Your task to perform on an android device: Open Reddit.com Image 0: 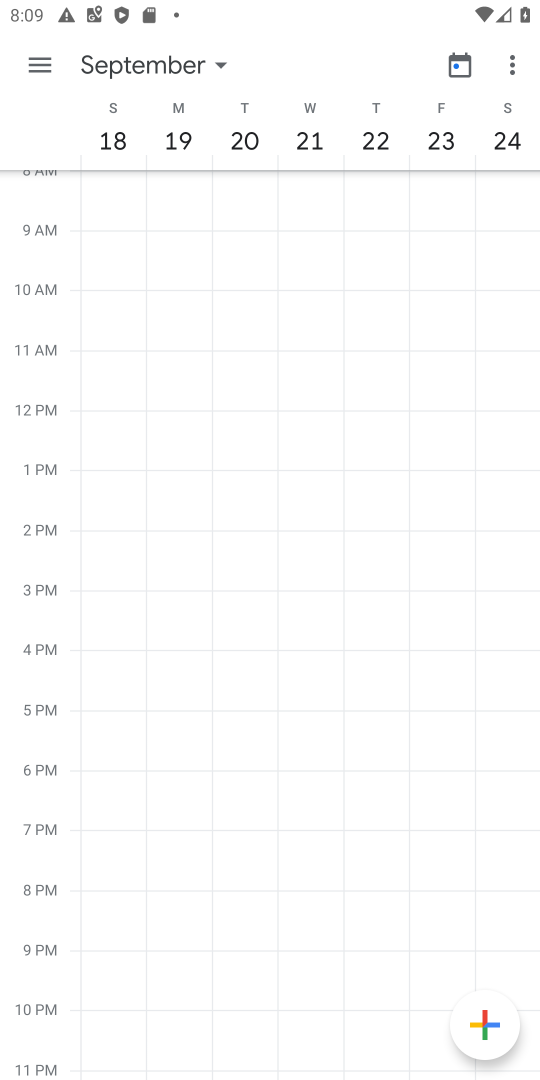
Step 0: press home button
Your task to perform on an android device: Open Reddit.com Image 1: 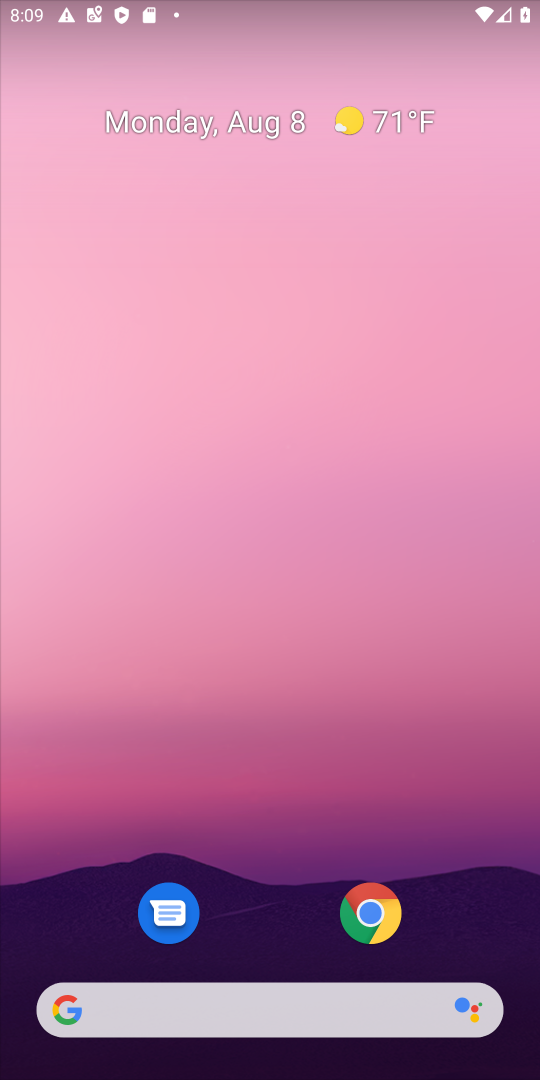
Step 1: click (368, 915)
Your task to perform on an android device: Open Reddit.com Image 2: 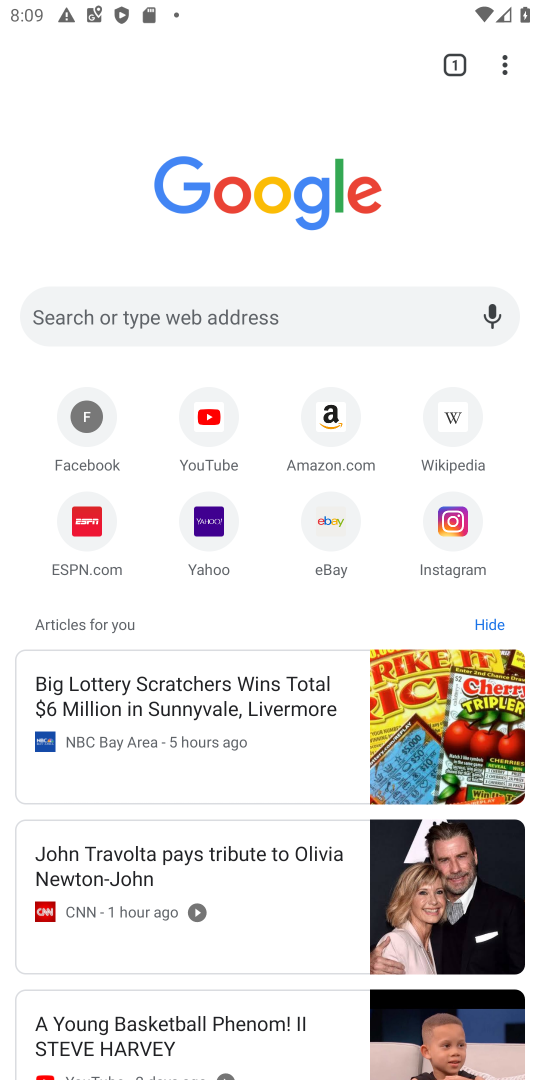
Step 2: click (277, 319)
Your task to perform on an android device: Open Reddit.com Image 3: 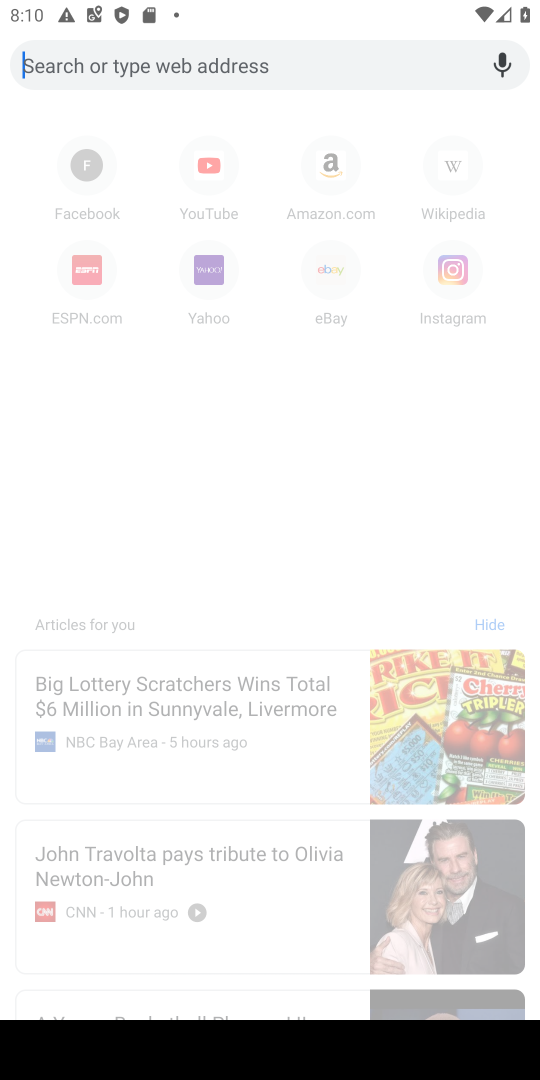
Step 3: type "Reddit.com"
Your task to perform on an android device: Open Reddit.com Image 4: 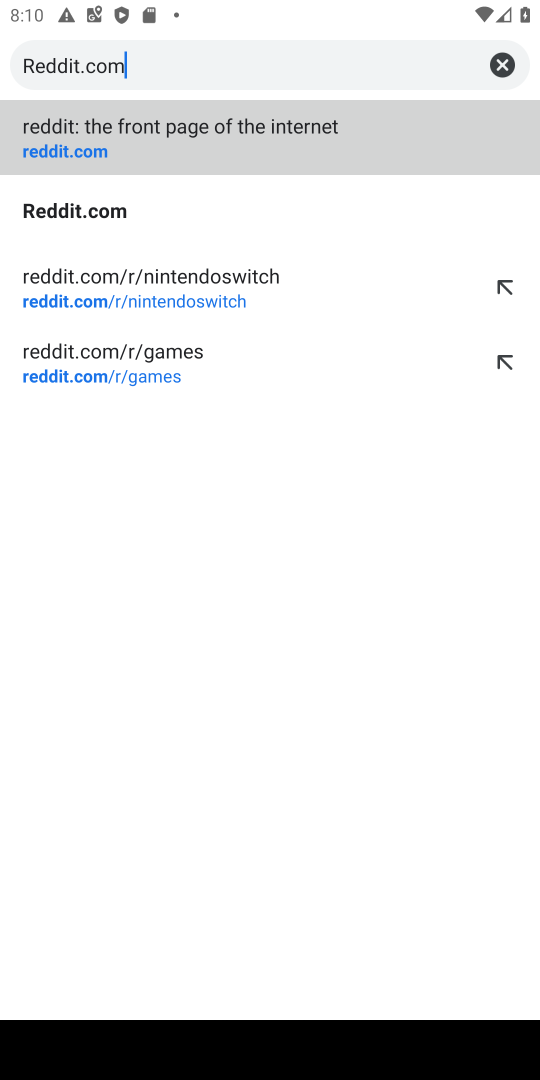
Step 4: click (109, 214)
Your task to perform on an android device: Open Reddit.com Image 5: 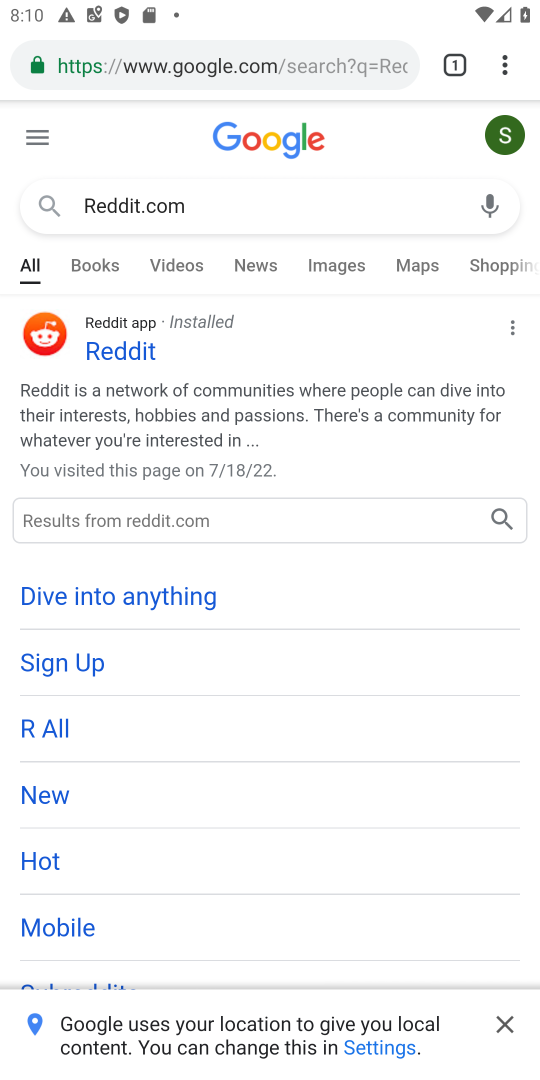
Step 5: click (111, 344)
Your task to perform on an android device: Open Reddit.com Image 6: 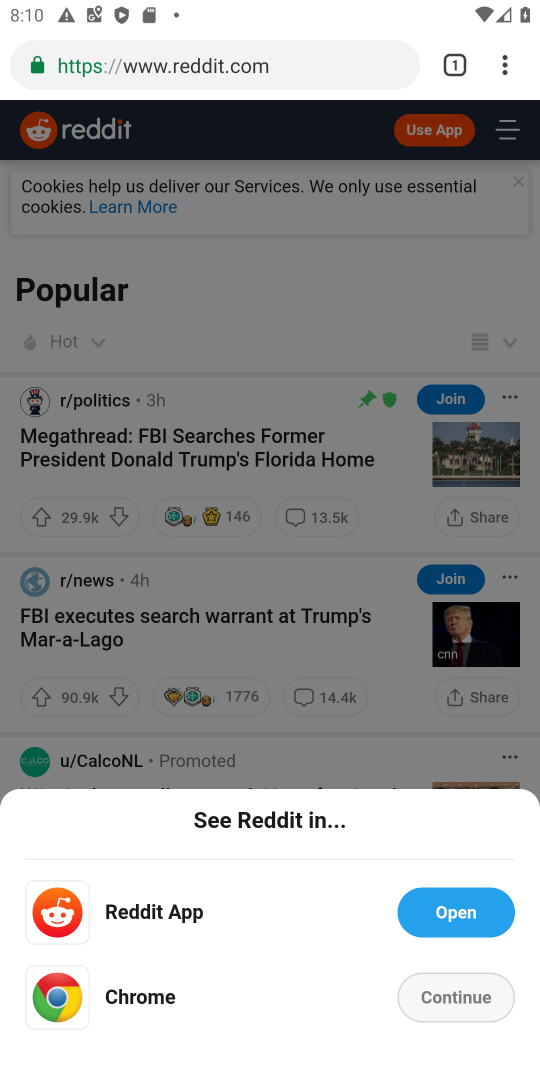
Step 6: click (451, 995)
Your task to perform on an android device: Open Reddit.com Image 7: 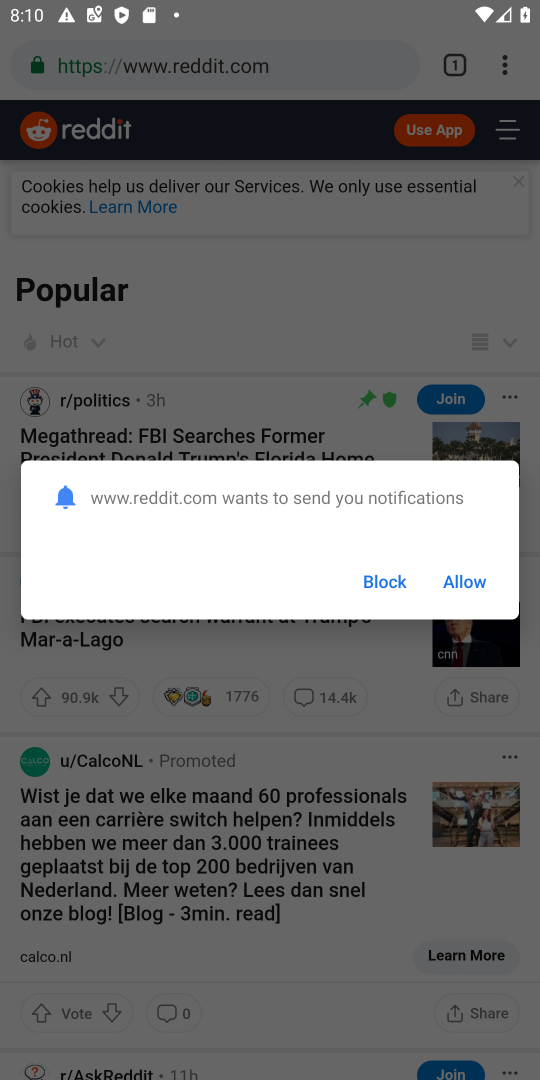
Step 7: click (467, 579)
Your task to perform on an android device: Open Reddit.com Image 8: 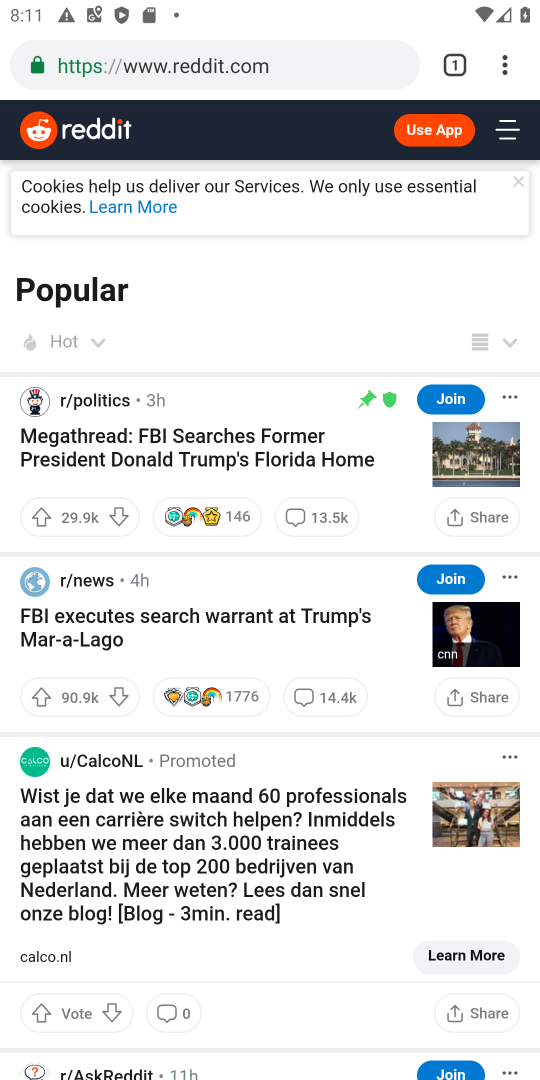
Step 8: task complete